Your task to perform on an android device: open sync settings in chrome Image 0: 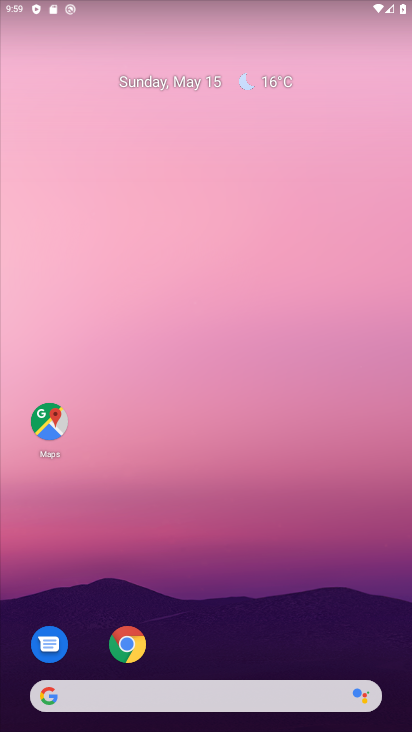
Step 0: click (138, 652)
Your task to perform on an android device: open sync settings in chrome Image 1: 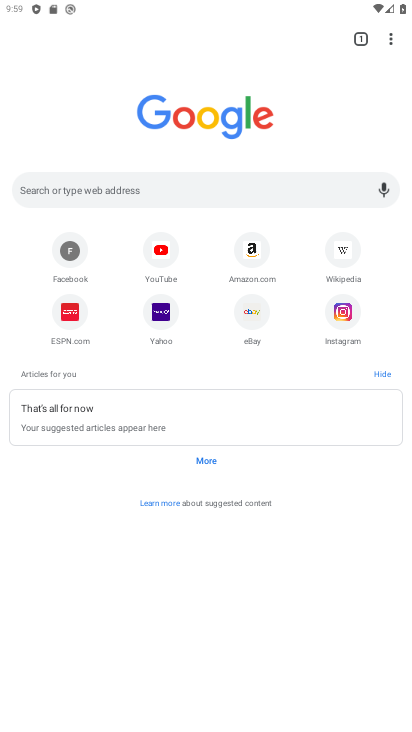
Step 1: click (396, 40)
Your task to perform on an android device: open sync settings in chrome Image 2: 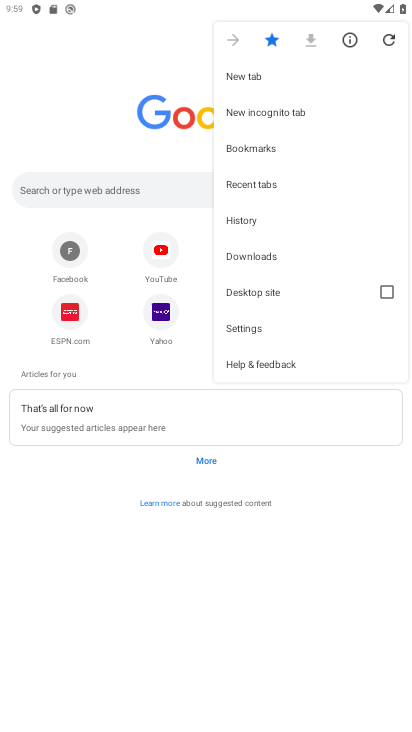
Step 2: click (239, 333)
Your task to perform on an android device: open sync settings in chrome Image 3: 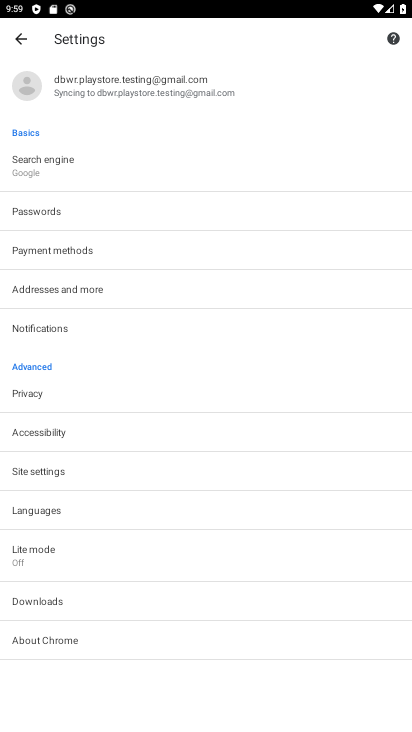
Step 3: click (71, 89)
Your task to perform on an android device: open sync settings in chrome Image 4: 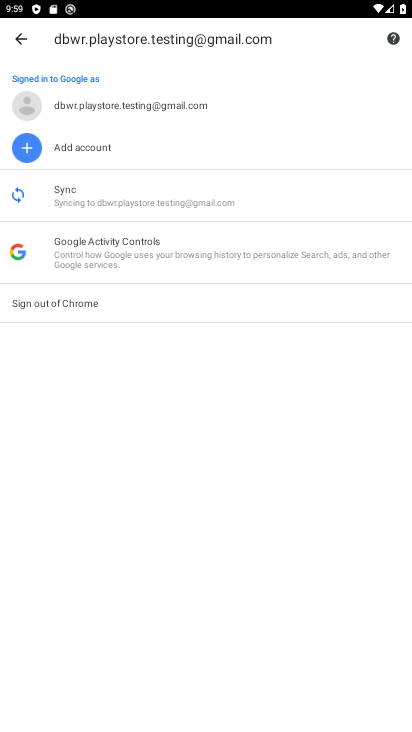
Step 4: click (61, 188)
Your task to perform on an android device: open sync settings in chrome Image 5: 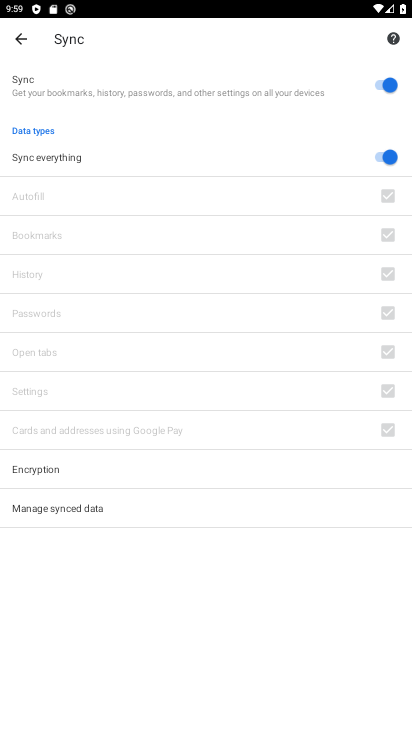
Step 5: task complete